Your task to perform on an android device: clear all cookies in the chrome app Image 0: 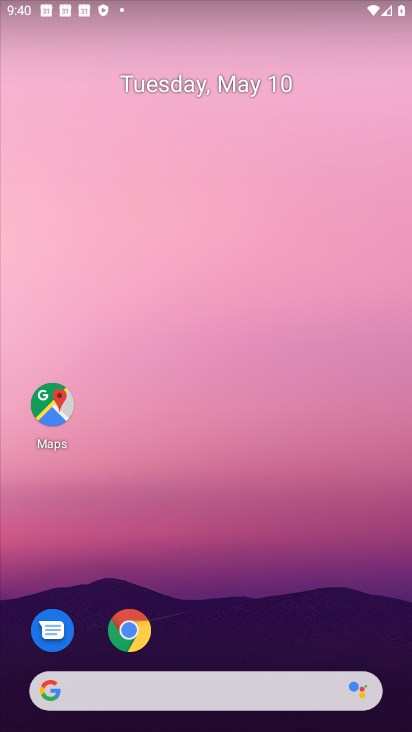
Step 0: click (140, 629)
Your task to perform on an android device: clear all cookies in the chrome app Image 1: 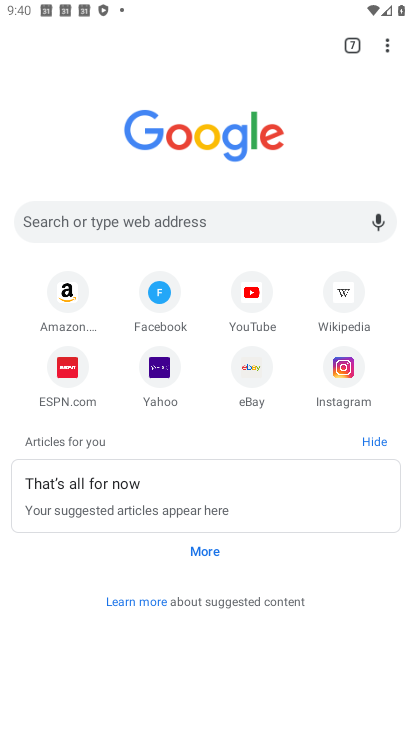
Step 1: click (389, 49)
Your task to perform on an android device: clear all cookies in the chrome app Image 2: 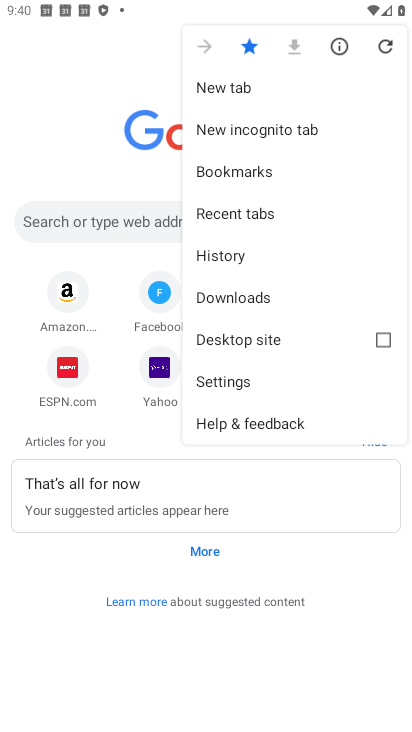
Step 2: click (246, 258)
Your task to perform on an android device: clear all cookies in the chrome app Image 3: 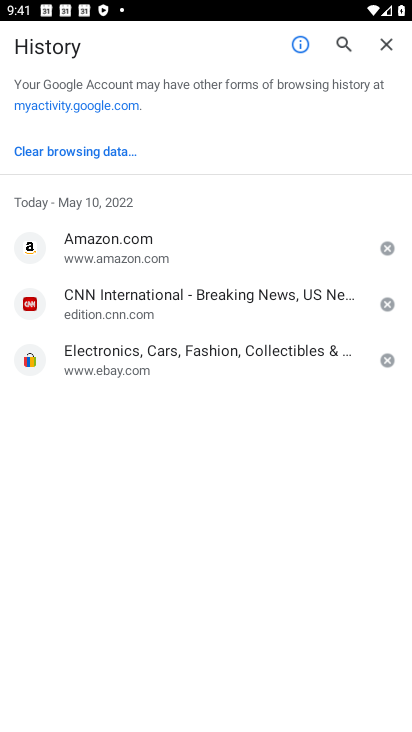
Step 3: click (88, 152)
Your task to perform on an android device: clear all cookies in the chrome app Image 4: 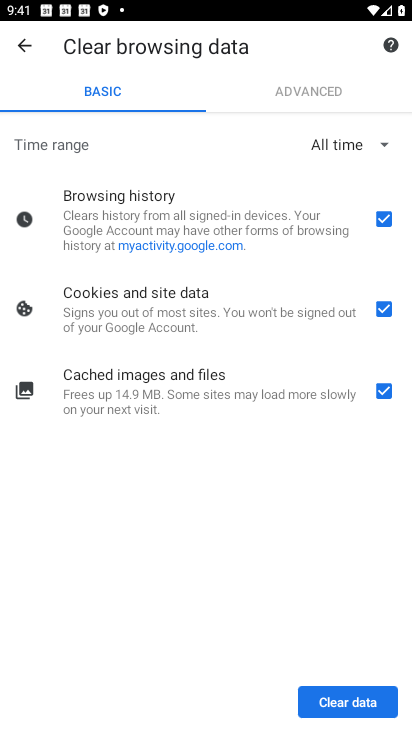
Step 4: click (337, 706)
Your task to perform on an android device: clear all cookies in the chrome app Image 5: 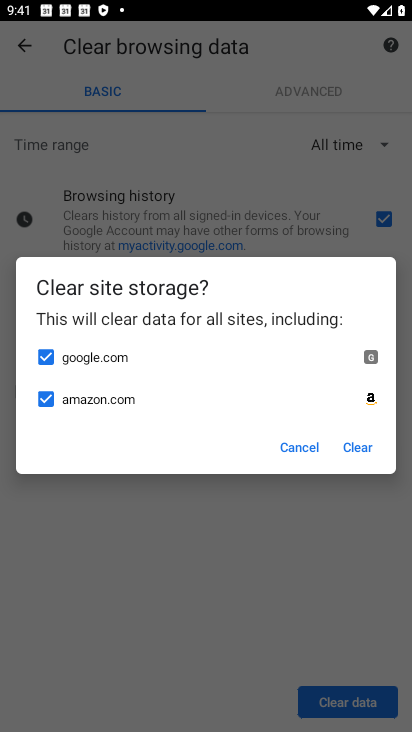
Step 5: click (362, 451)
Your task to perform on an android device: clear all cookies in the chrome app Image 6: 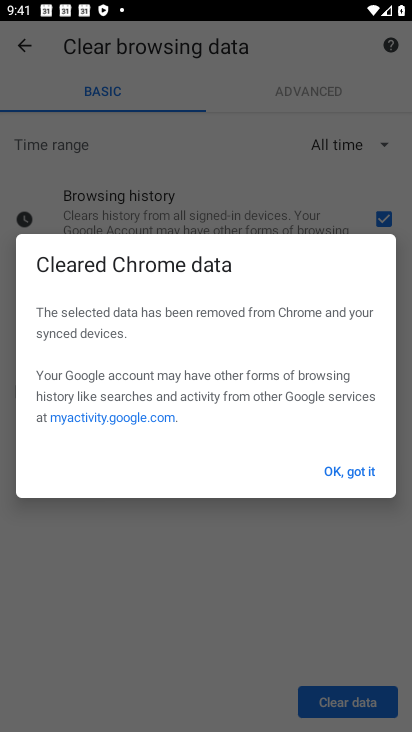
Step 6: click (341, 476)
Your task to perform on an android device: clear all cookies in the chrome app Image 7: 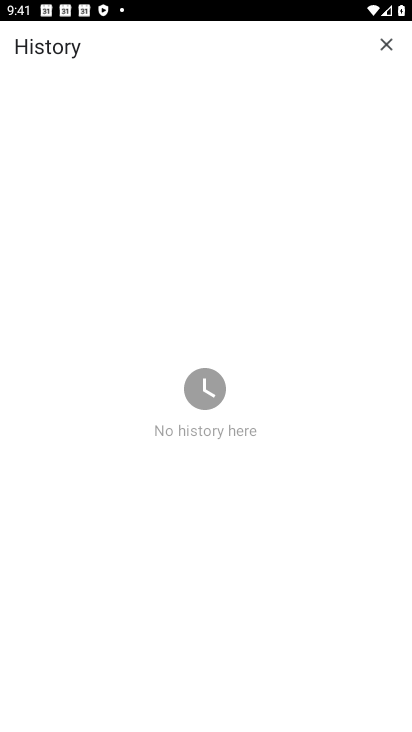
Step 7: task complete